Your task to perform on an android device: Go to location settings Image 0: 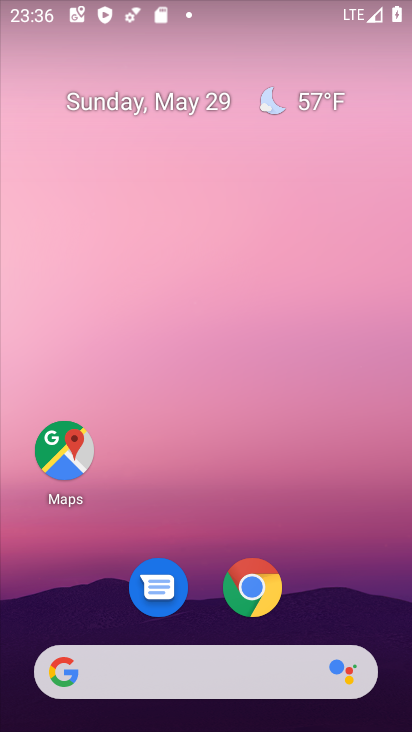
Step 0: drag from (379, 605) to (206, 140)
Your task to perform on an android device: Go to location settings Image 1: 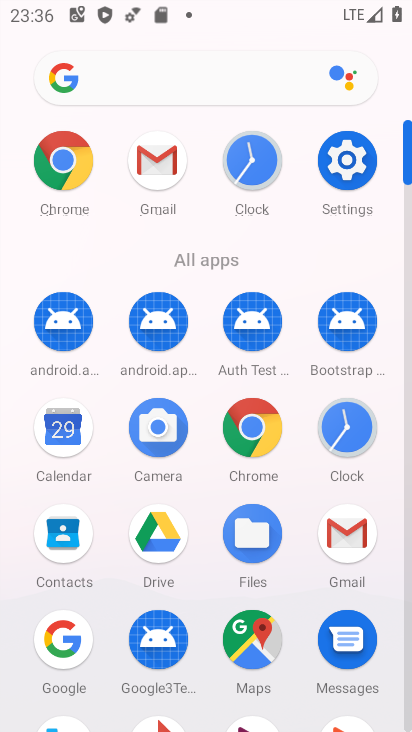
Step 1: click (337, 156)
Your task to perform on an android device: Go to location settings Image 2: 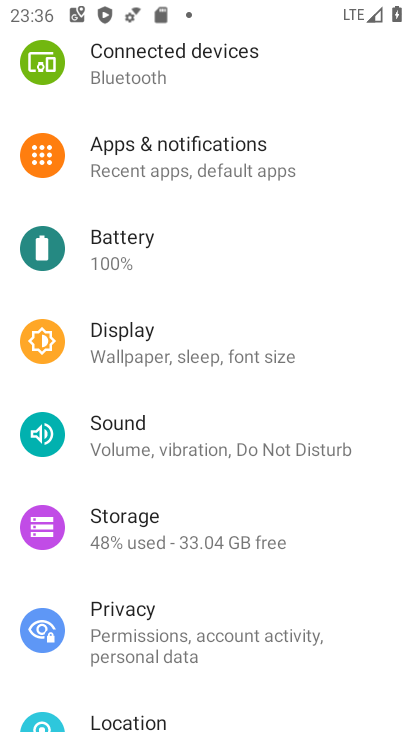
Step 2: drag from (304, 664) to (295, 416)
Your task to perform on an android device: Go to location settings Image 3: 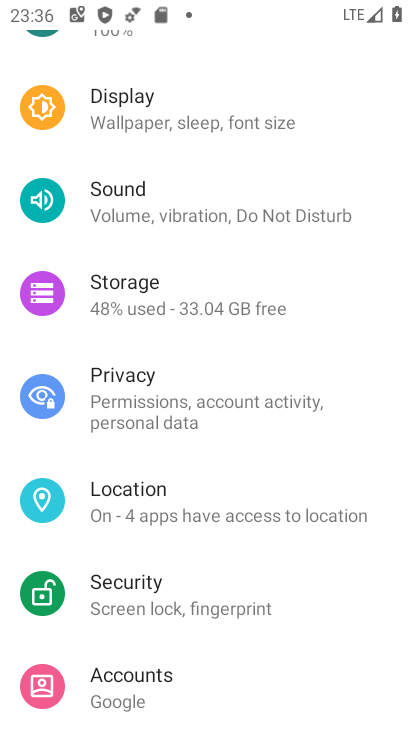
Step 3: click (310, 507)
Your task to perform on an android device: Go to location settings Image 4: 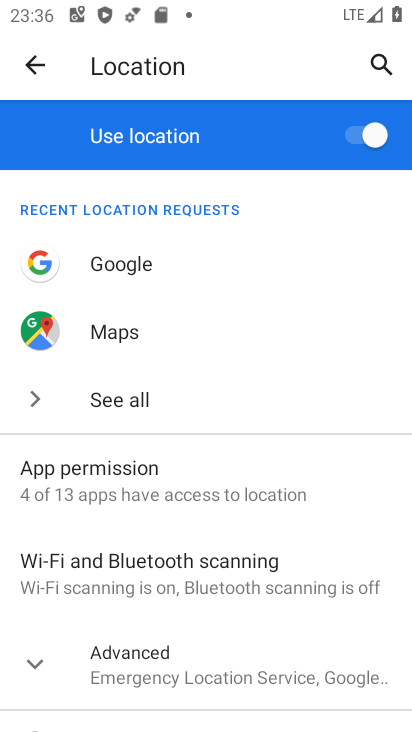
Step 4: task complete